Your task to perform on an android device: Search for Italian restaurants on Maps Image 0: 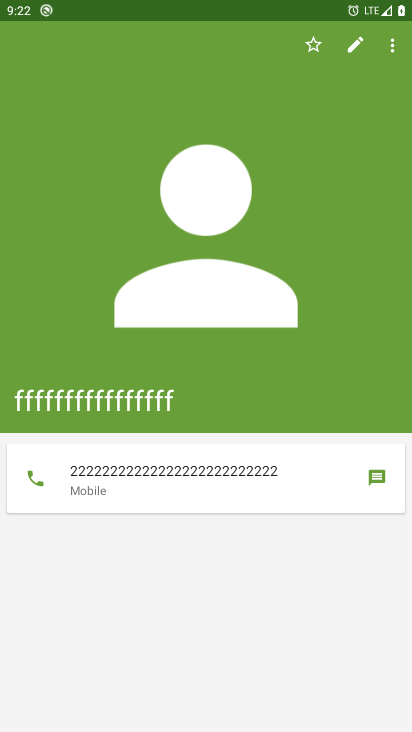
Step 0: press home button
Your task to perform on an android device: Search for Italian restaurants on Maps Image 1: 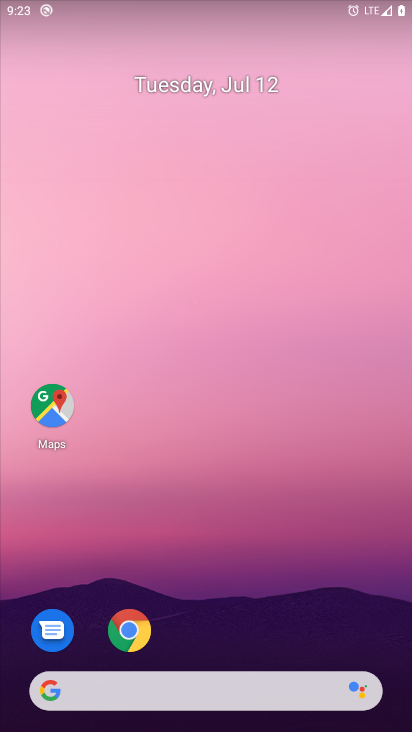
Step 1: click (46, 399)
Your task to perform on an android device: Search for Italian restaurants on Maps Image 2: 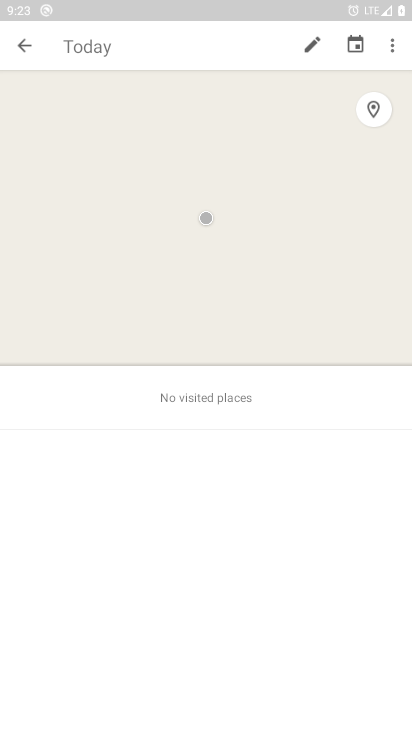
Step 2: click (189, 47)
Your task to perform on an android device: Search for Italian restaurants on Maps Image 3: 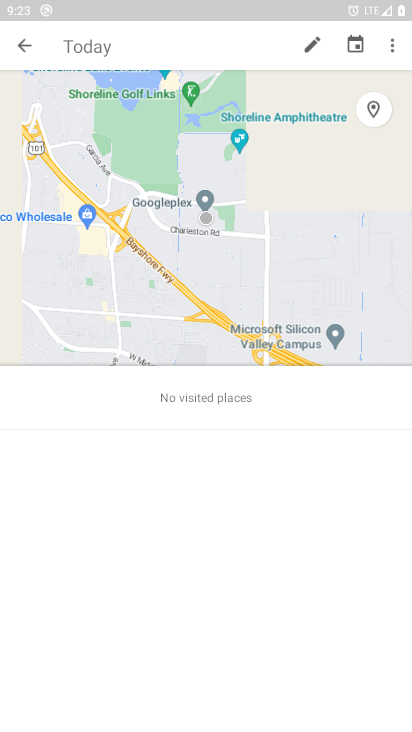
Step 3: click (312, 49)
Your task to perform on an android device: Search for Italian restaurants on Maps Image 4: 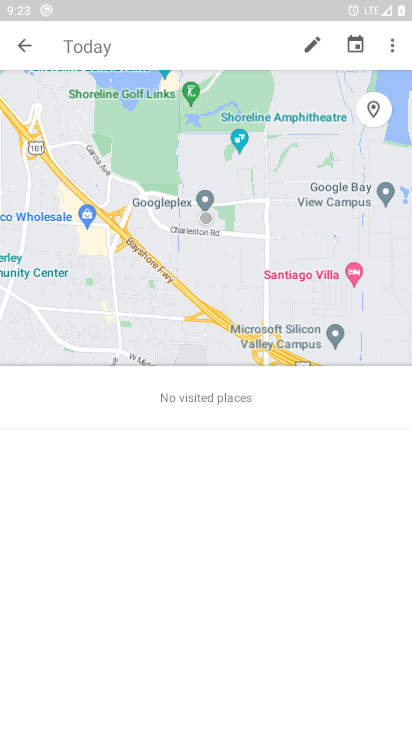
Step 4: click (89, 50)
Your task to perform on an android device: Search for Italian restaurants on Maps Image 5: 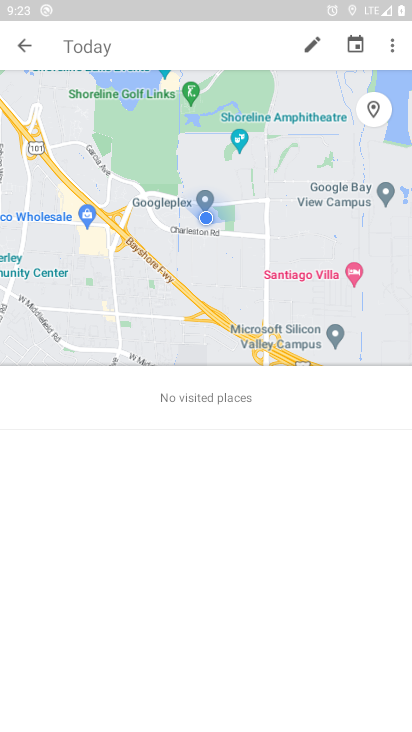
Step 5: type "Italian restaurants"
Your task to perform on an android device: Search for Italian restaurants on Maps Image 6: 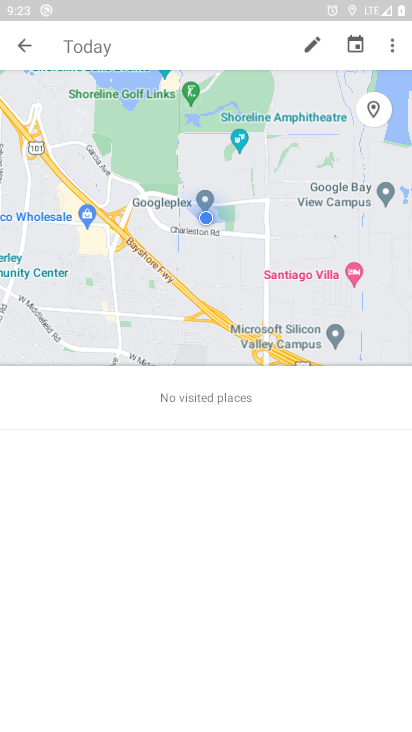
Step 6: click (26, 44)
Your task to perform on an android device: Search for Italian restaurants on Maps Image 7: 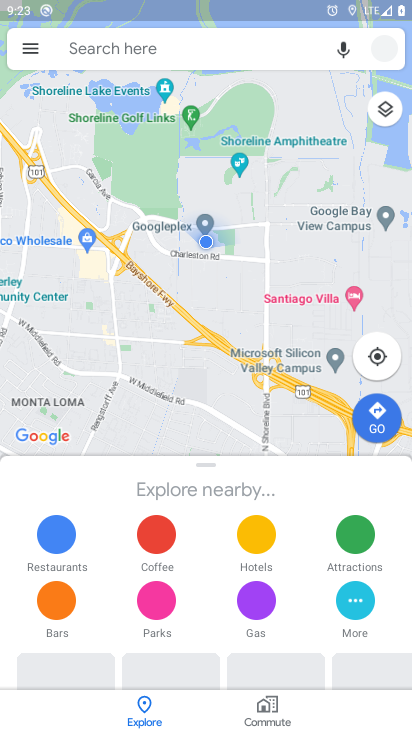
Step 7: click (91, 45)
Your task to perform on an android device: Search for Italian restaurants on Maps Image 8: 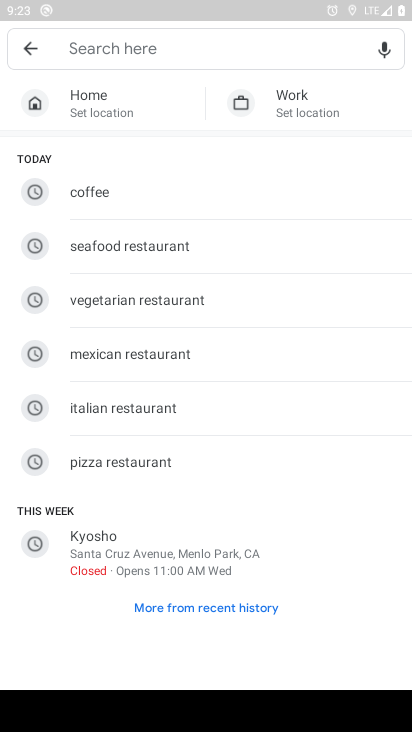
Step 8: click (107, 407)
Your task to perform on an android device: Search for Italian restaurants on Maps Image 9: 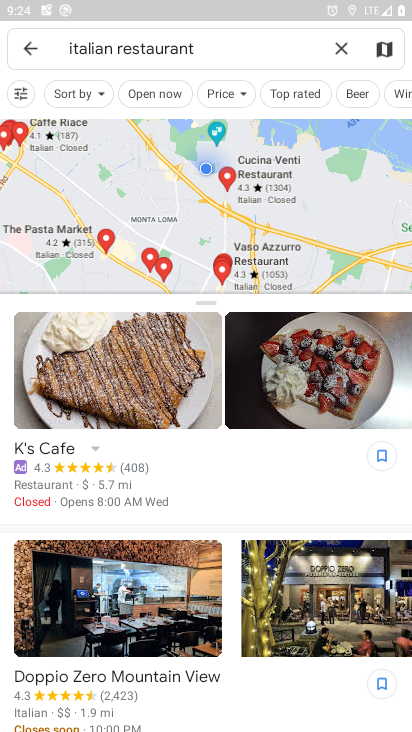
Step 9: task complete